Your task to perform on an android device: See recent photos Image 0: 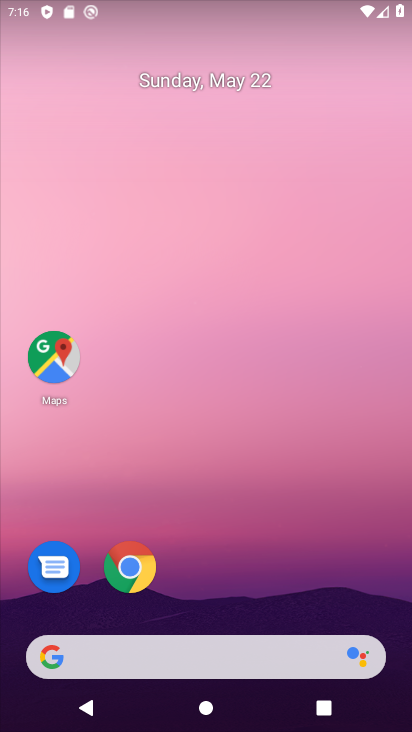
Step 0: drag from (229, 551) to (291, 159)
Your task to perform on an android device: See recent photos Image 1: 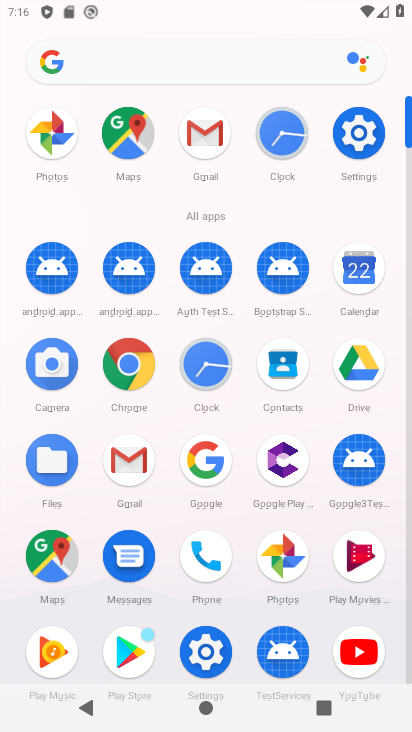
Step 1: click (284, 552)
Your task to perform on an android device: See recent photos Image 2: 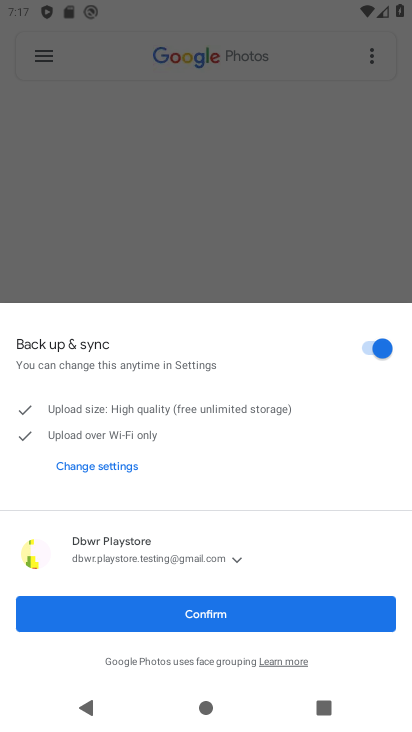
Step 2: click (209, 621)
Your task to perform on an android device: See recent photos Image 3: 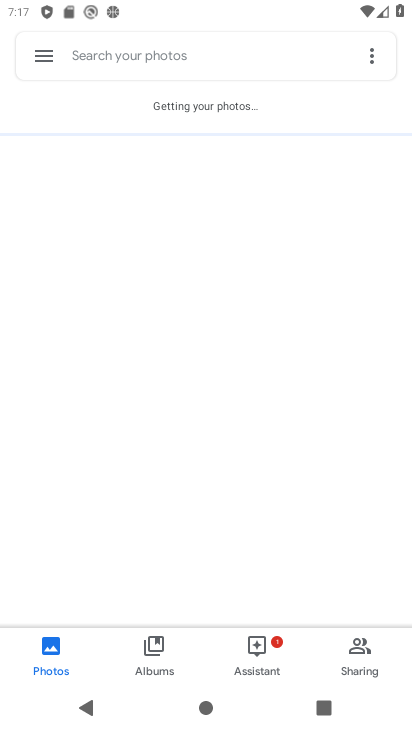
Step 3: click (69, 663)
Your task to perform on an android device: See recent photos Image 4: 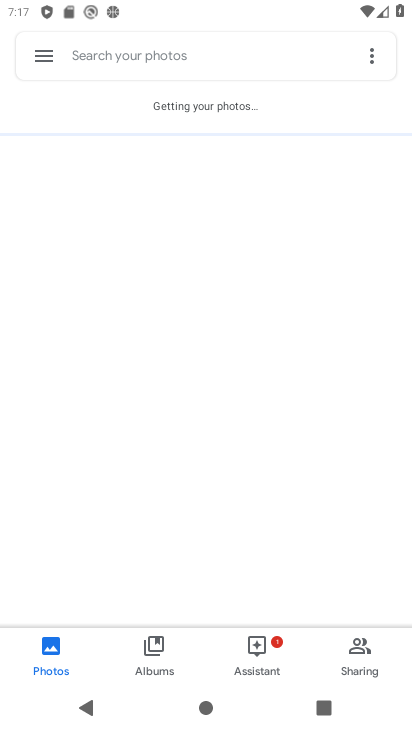
Step 4: task complete